Your task to perform on an android device: Do I have any events tomorrow? Image 0: 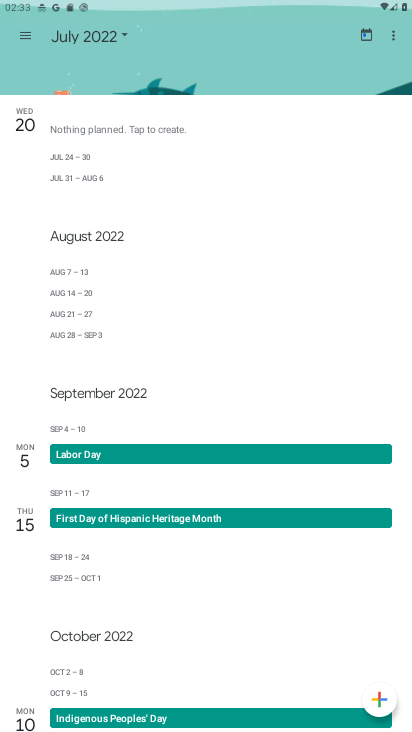
Step 0: click (79, 41)
Your task to perform on an android device: Do I have any events tomorrow? Image 1: 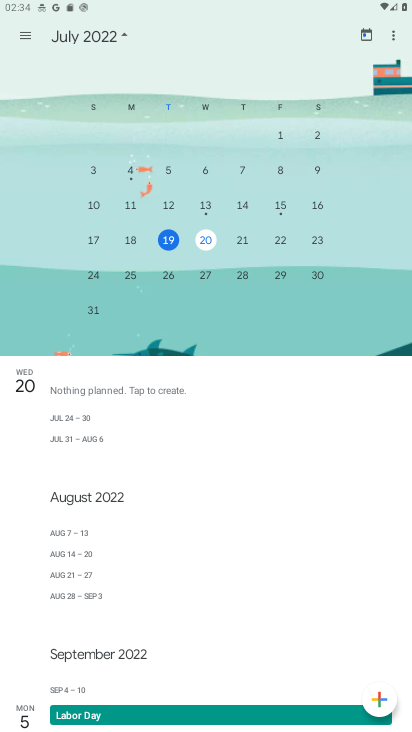
Step 1: task complete